Your task to perform on an android device: toggle priority inbox in the gmail app Image 0: 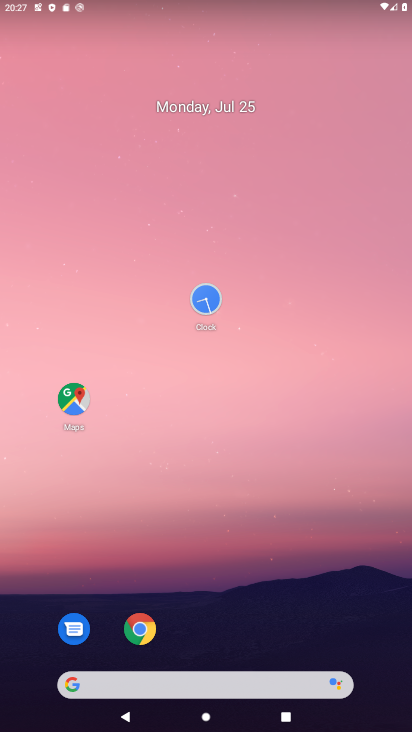
Step 0: drag from (199, 532) to (112, 9)
Your task to perform on an android device: toggle priority inbox in the gmail app Image 1: 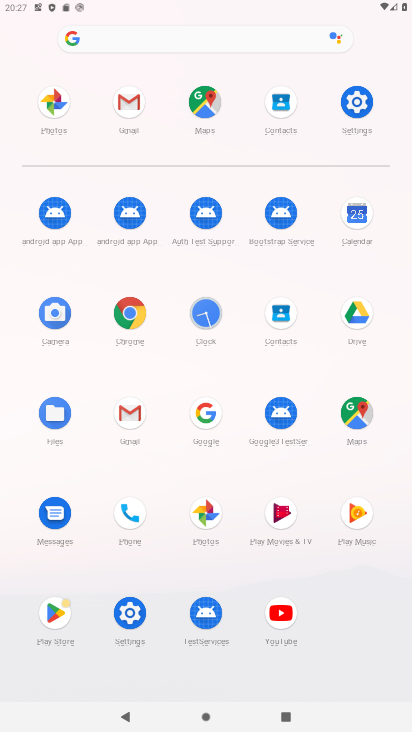
Step 1: click (131, 421)
Your task to perform on an android device: toggle priority inbox in the gmail app Image 2: 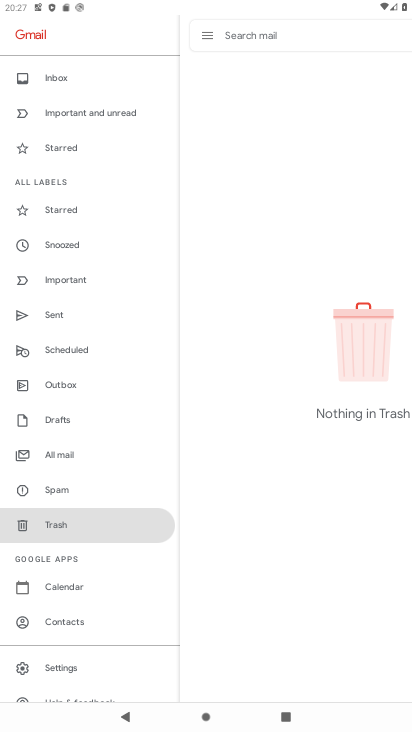
Step 2: click (64, 670)
Your task to perform on an android device: toggle priority inbox in the gmail app Image 3: 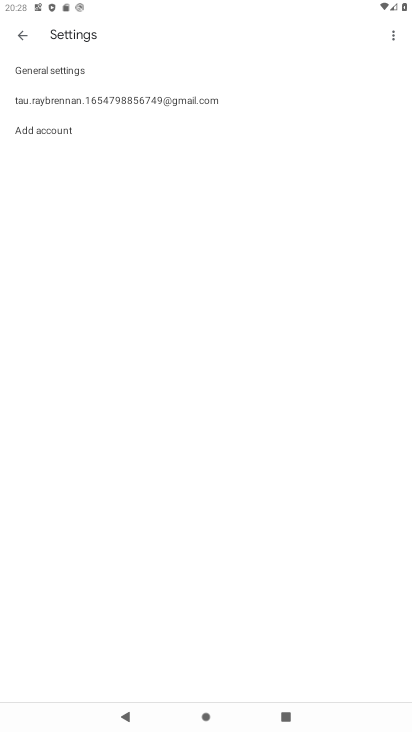
Step 3: click (72, 107)
Your task to perform on an android device: toggle priority inbox in the gmail app Image 4: 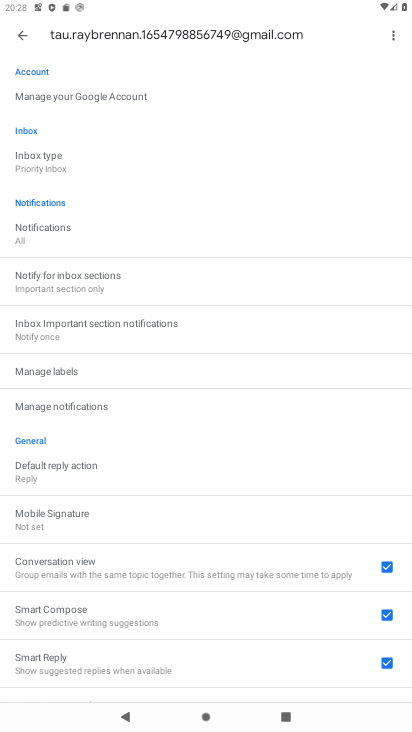
Step 4: click (52, 161)
Your task to perform on an android device: toggle priority inbox in the gmail app Image 5: 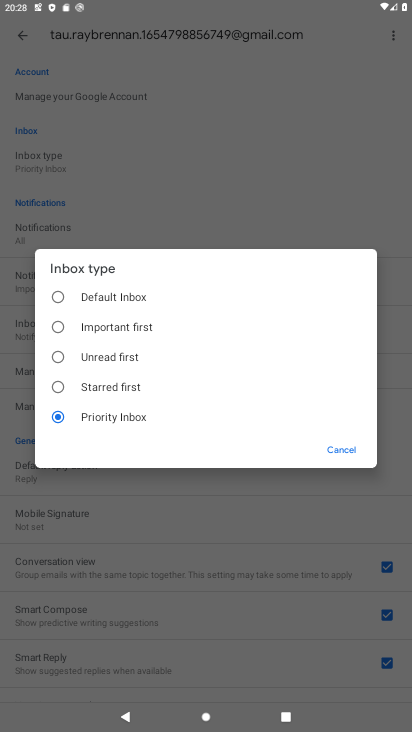
Step 5: click (102, 287)
Your task to perform on an android device: toggle priority inbox in the gmail app Image 6: 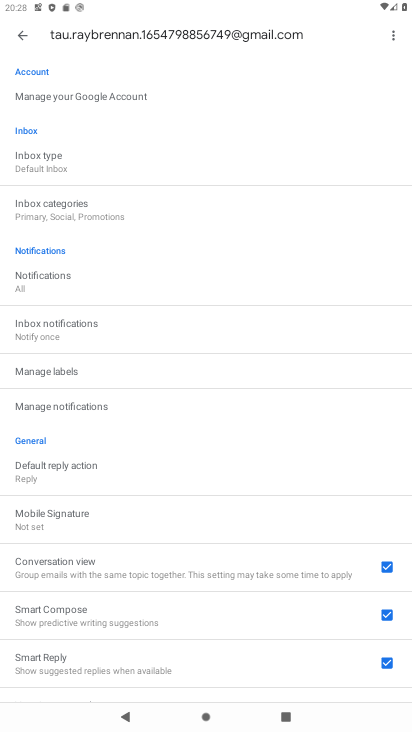
Step 6: task complete